Your task to perform on an android device: turn off location Image 0: 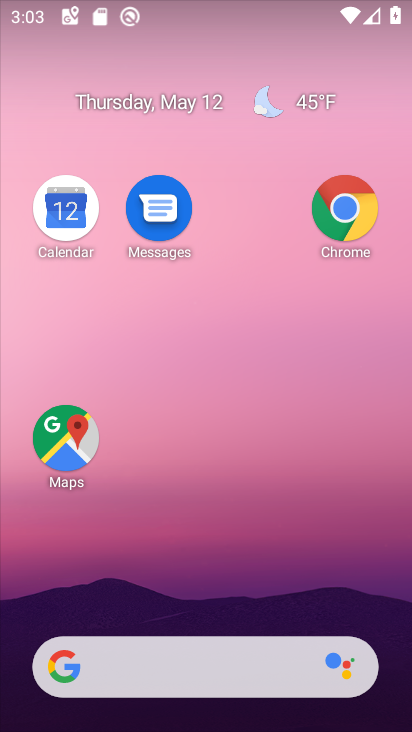
Step 0: click (295, 8)
Your task to perform on an android device: turn off location Image 1: 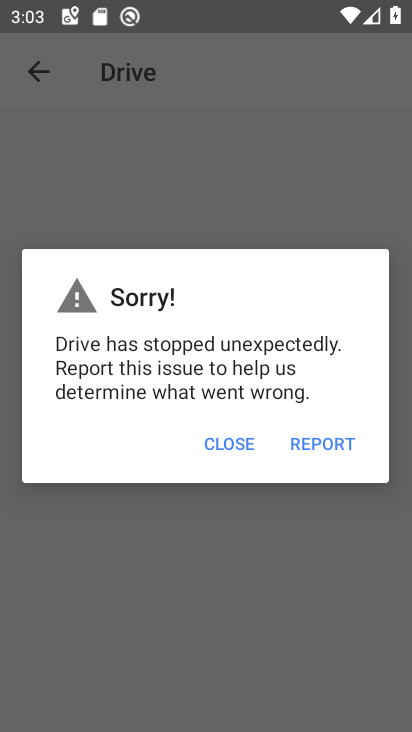
Step 1: press home button
Your task to perform on an android device: turn off location Image 2: 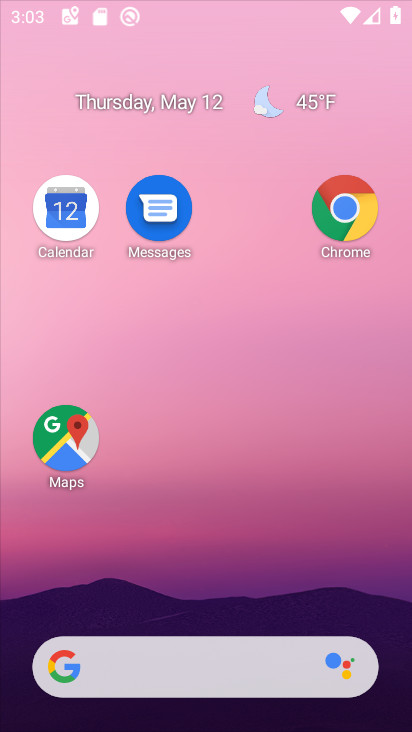
Step 2: drag from (184, 620) to (330, 232)
Your task to perform on an android device: turn off location Image 3: 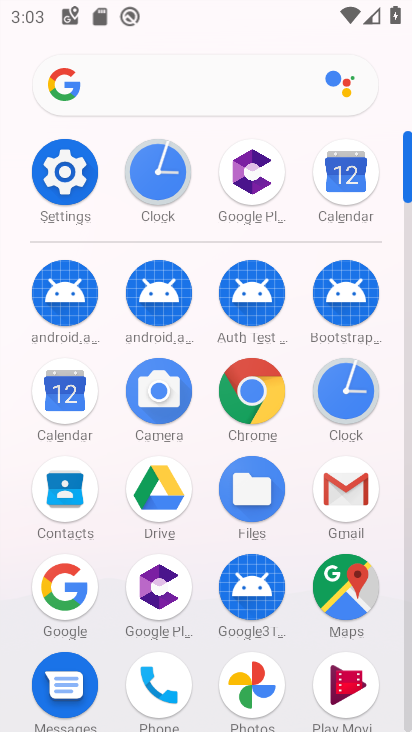
Step 3: click (71, 171)
Your task to perform on an android device: turn off location Image 4: 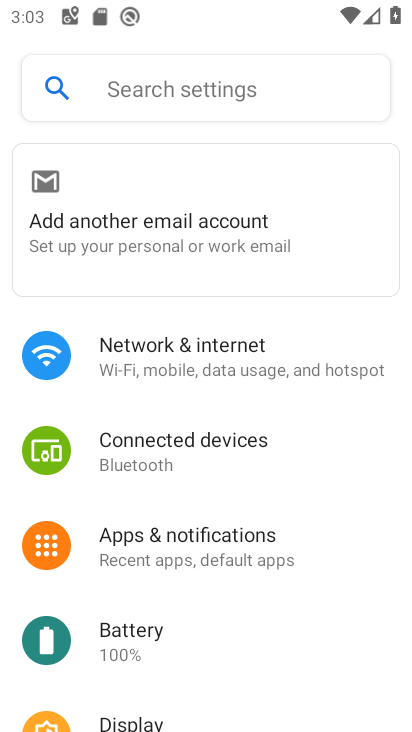
Step 4: drag from (178, 639) to (278, 202)
Your task to perform on an android device: turn off location Image 5: 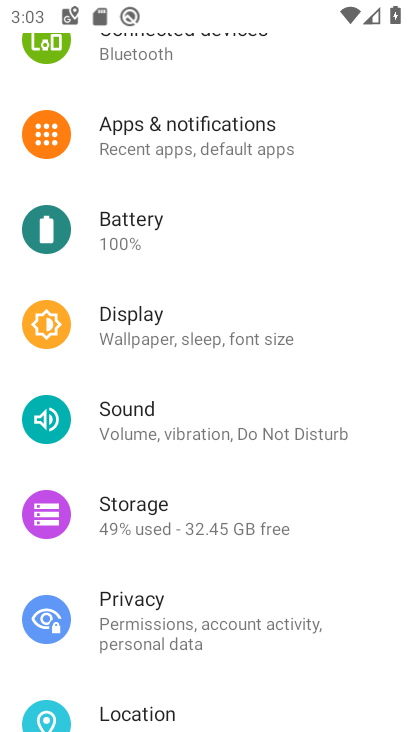
Step 5: drag from (176, 641) to (236, 311)
Your task to perform on an android device: turn off location Image 6: 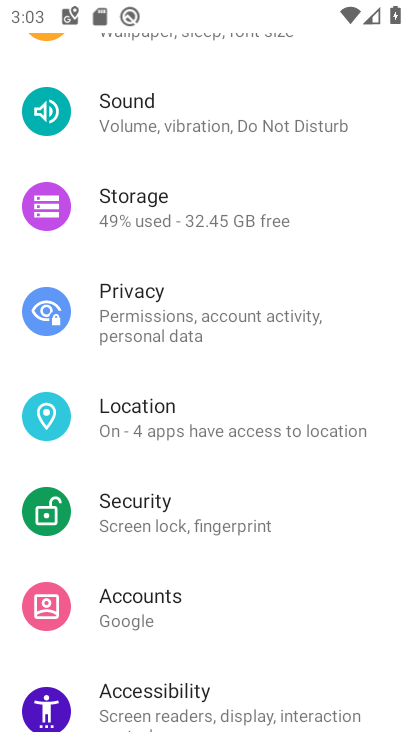
Step 6: click (208, 425)
Your task to perform on an android device: turn off location Image 7: 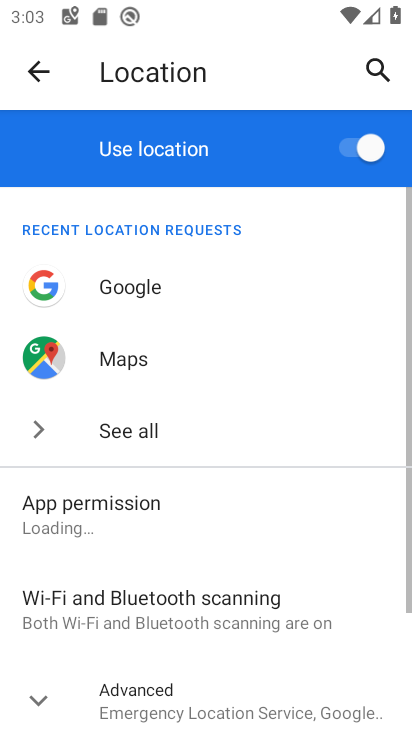
Step 7: click (363, 169)
Your task to perform on an android device: turn off location Image 8: 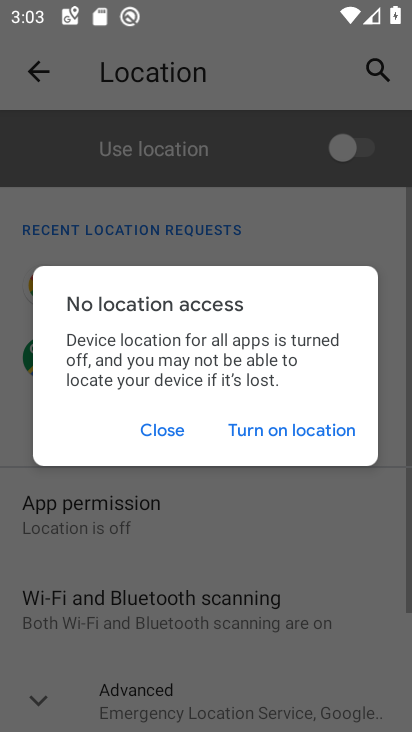
Step 8: task complete